Your task to perform on an android device: choose inbox layout in the gmail app Image 0: 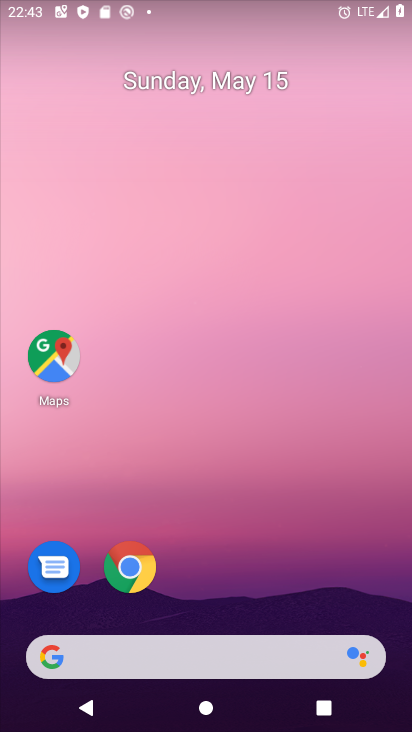
Step 0: drag from (250, 704) to (319, 6)
Your task to perform on an android device: choose inbox layout in the gmail app Image 1: 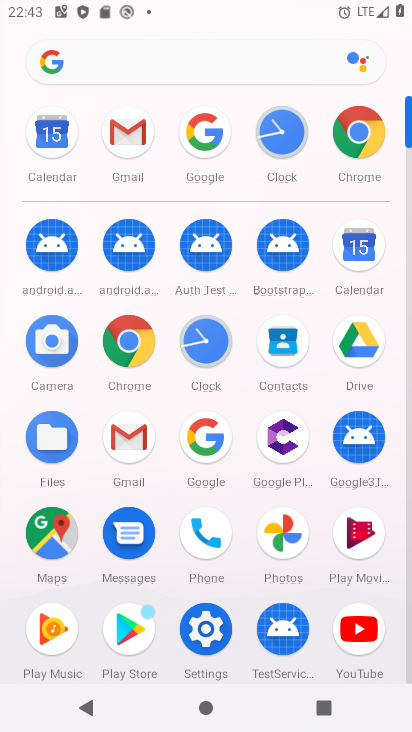
Step 1: click (126, 441)
Your task to perform on an android device: choose inbox layout in the gmail app Image 2: 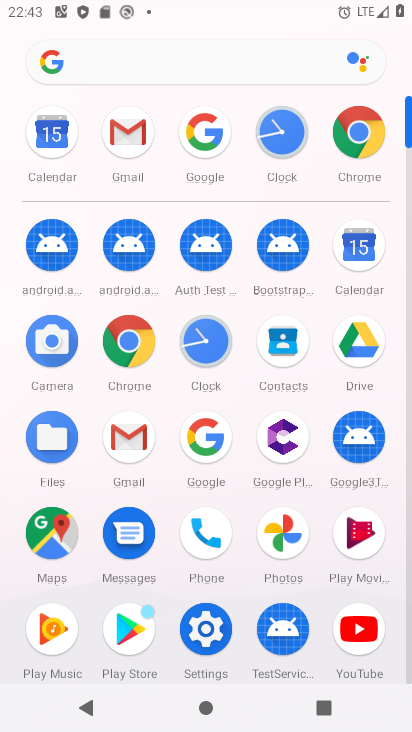
Step 2: click (126, 441)
Your task to perform on an android device: choose inbox layout in the gmail app Image 3: 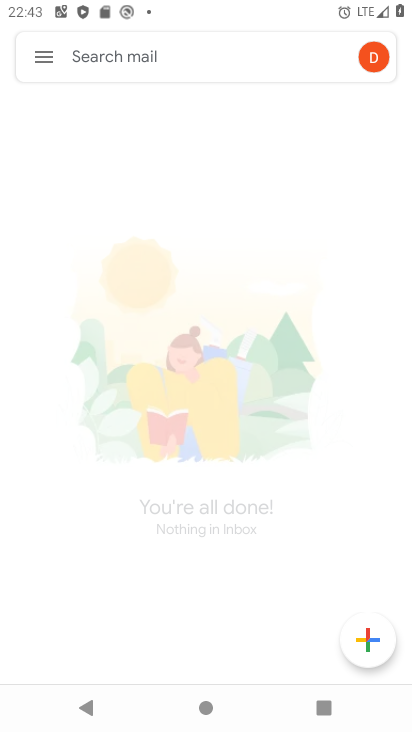
Step 3: click (41, 53)
Your task to perform on an android device: choose inbox layout in the gmail app Image 4: 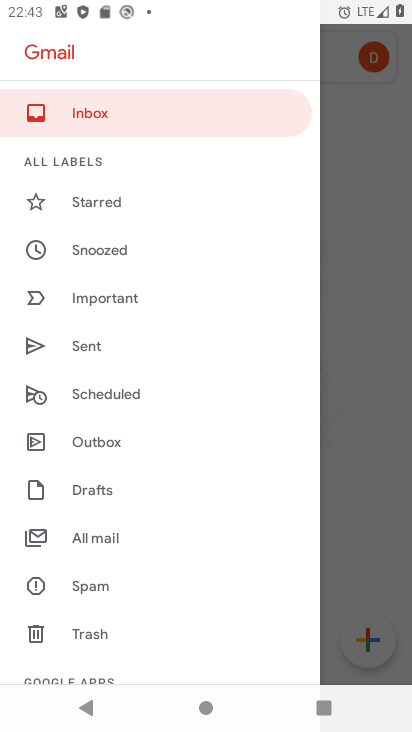
Step 4: drag from (177, 579) to (192, 20)
Your task to perform on an android device: choose inbox layout in the gmail app Image 5: 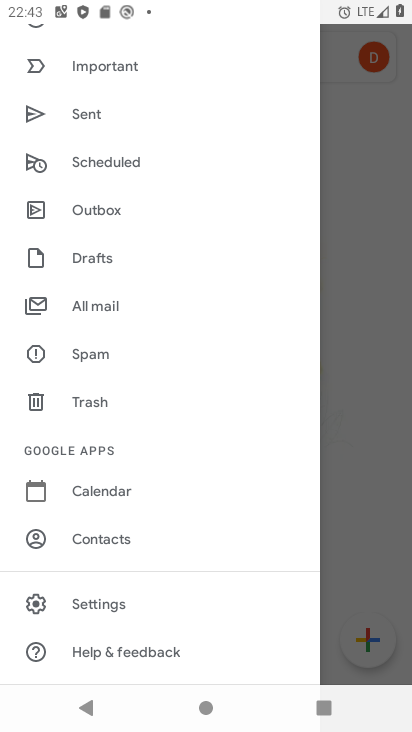
Step 5: click (130, 604)
Your task to perform on an android device: choose inbox layout in the gmail app Image 6: 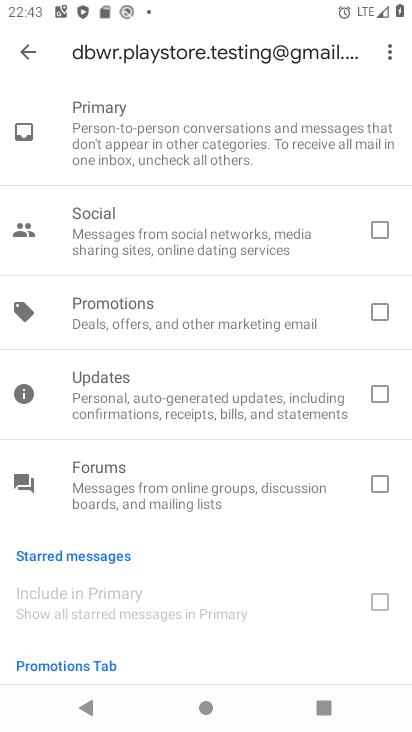
Step 6: drag from (226, 125) to (210, 727)
Your task to perform on an android device: choose inbox layout in the gmail app Image 7: 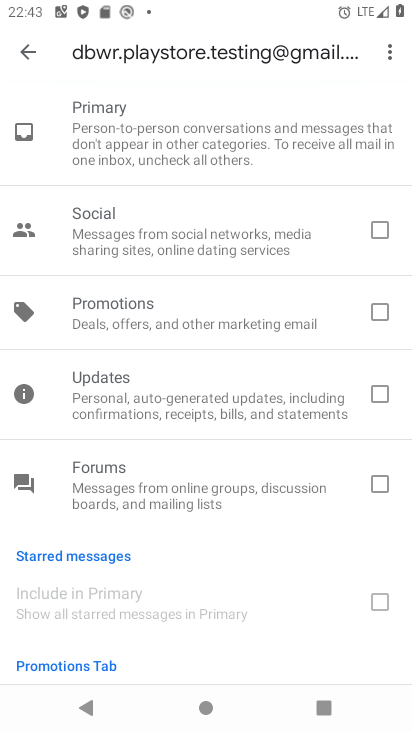
Step 7: drag from (244, 171) to (229, 719)
Your task to perform on an android device: choose inbox layout in the gmail app Image 8: 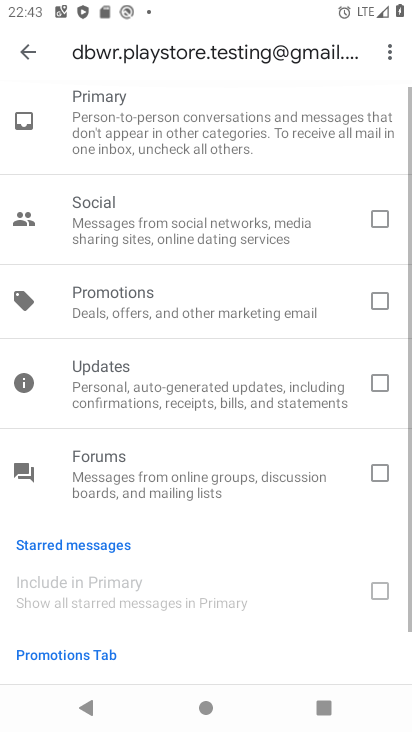
Step 8: drag from (244, 658) to (263, 85)
Your task to perform on an android device: choose inbox layout in the gmail app Image 9: 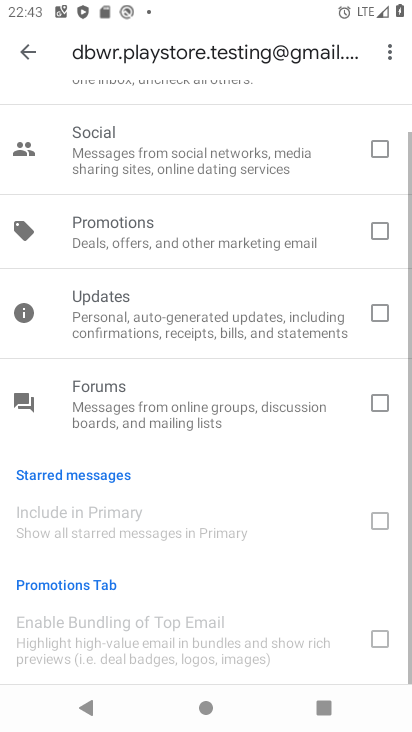
Step 9: click (21, 42)
Your task to perform on an android device: choose inbox layout in the gmail app Image 10: 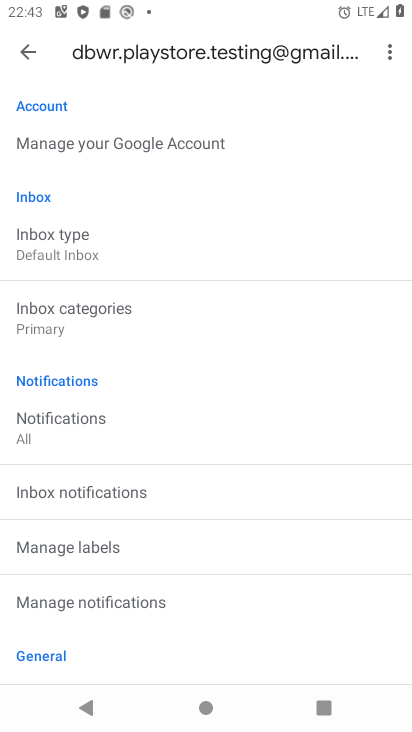
Step 10: click (134, 243)
Your task to perform on an android device: choose inbox layout in the gmail app Image 11: 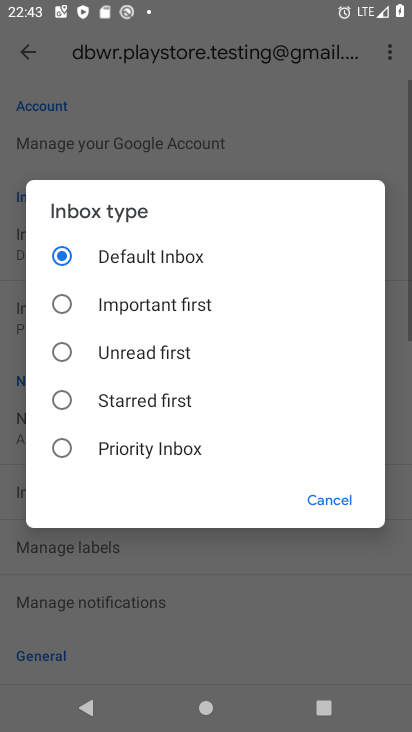
Step 11: click (146, 307)
Your task to perform on an android device: choose inbox layout in the gmail app Image 12: 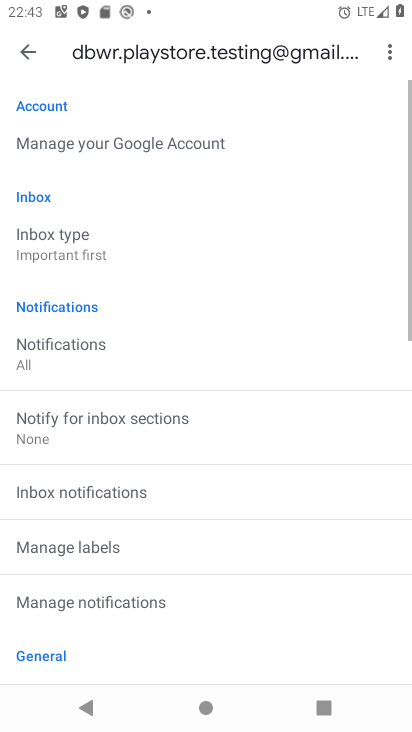
Step 12: task complete